Your task to perform on an android device: Open Maps and search for coffee Image 0: 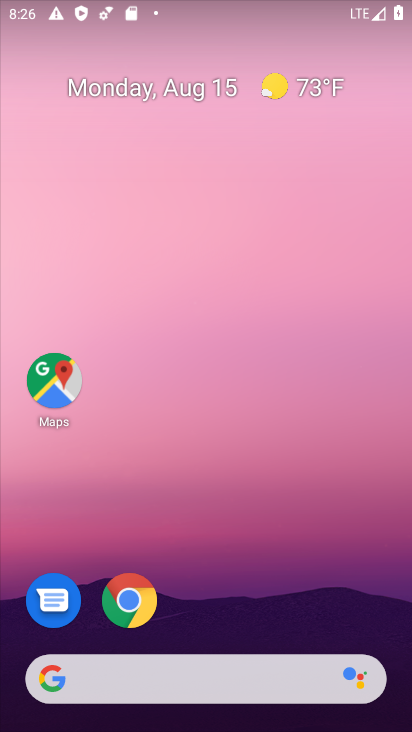
Step 0: click (57, 374)
Your task to perform on an android device: Open Maps and search for coffee Image 1: 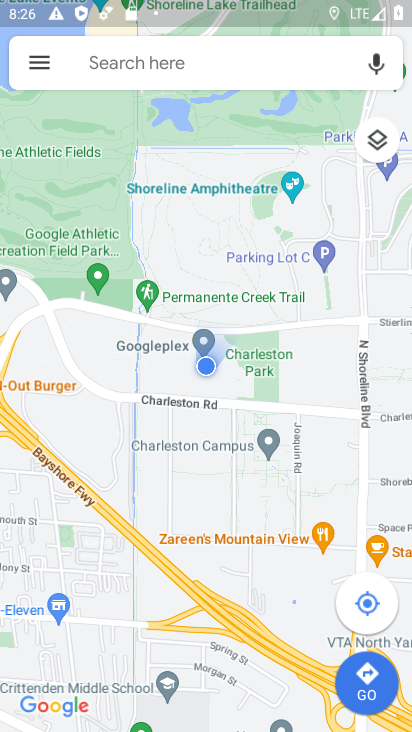
Step 1: click (201, 62)
Your task to perform on an android device: Open Maps and search for coffee Image 2: 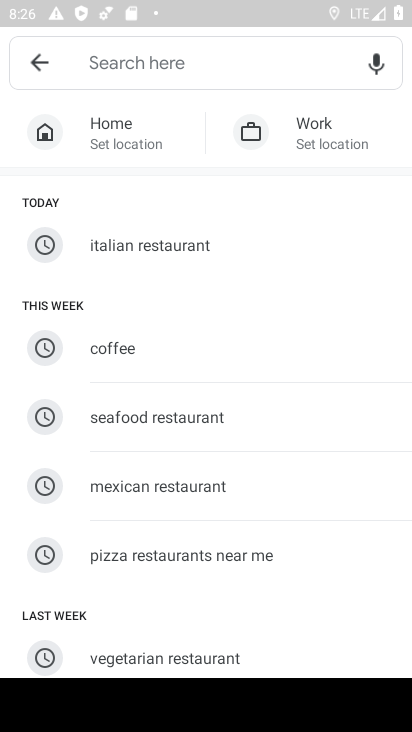
Step 2: type "coffee"
Your task to perform on an android device: Open Maps and search for coffee Image 3: 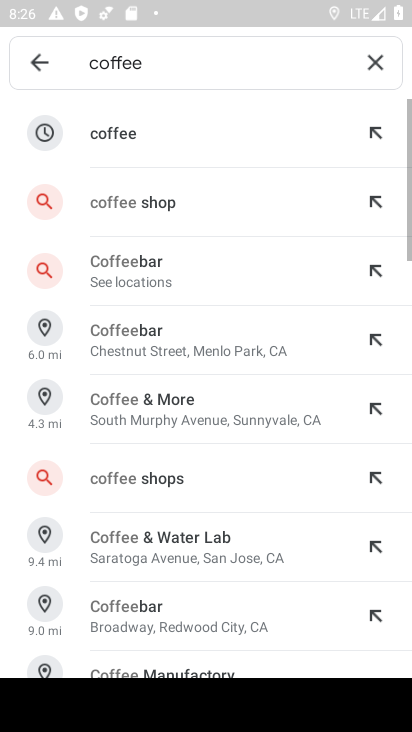
Step 3: click (125, 126)
Your task to perform on an android device: Open Maps and search for coffee Image 4: 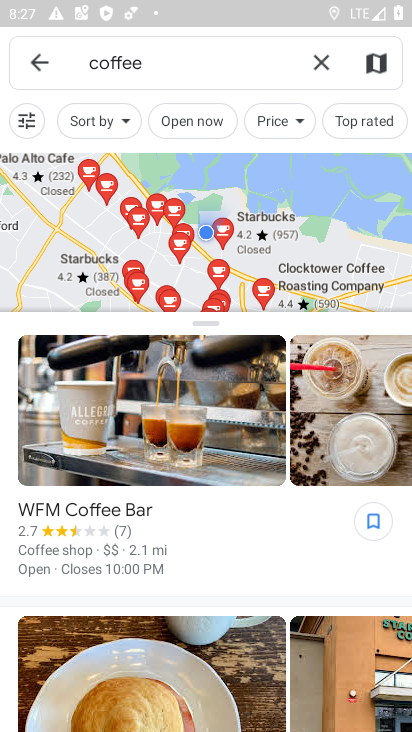
Step 4: task complete